Your task to perform on an android device: Open the phone app and click the voicemail tab. Image 0: 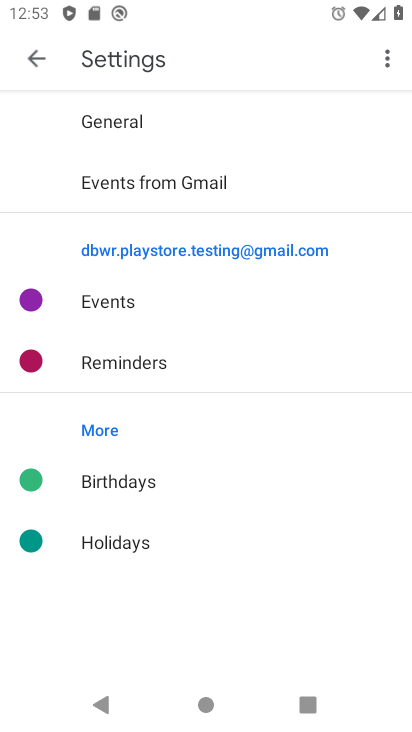
Step 0: press home button
Your task to perform on an android device: Open the phone app and click the voicemail tab. Image 1: 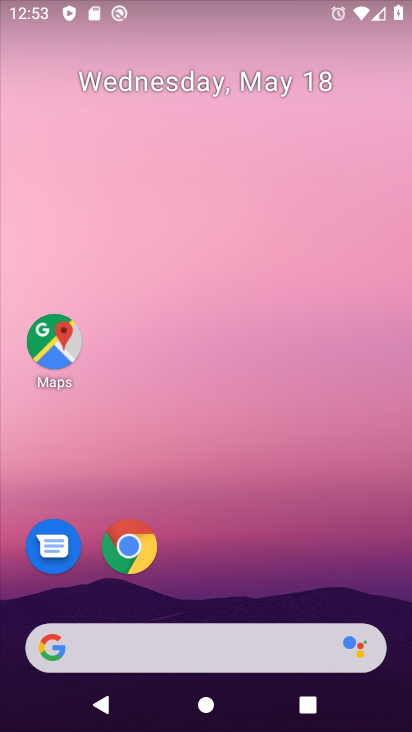
Step 1: drag from (131, 611) to (228, 10)
Your task to perform on an android device: Open the phone app and click the voicemail tab. Image 2: 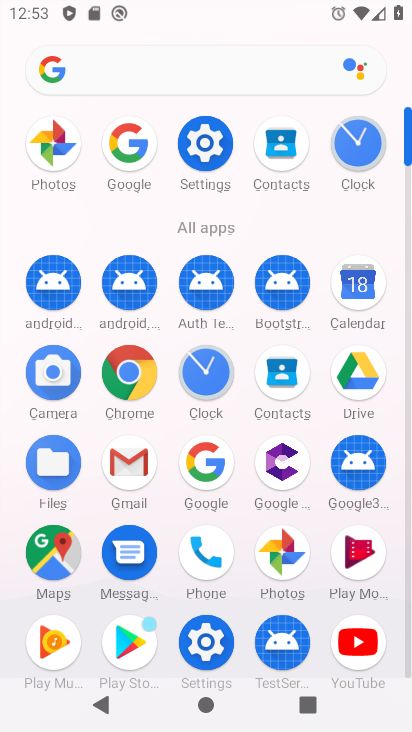
Step 2: click (202, 575)
Your task to perform on an android device: Open the phone app and click the voicemail tab. Image 3: 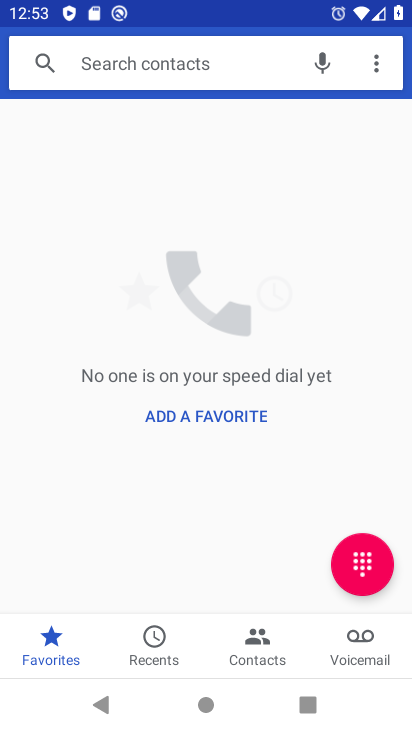
Step 3: click (354, 638)
Your task to perform on an android device: Open the phone app and click the voicemail tab. Image 4: 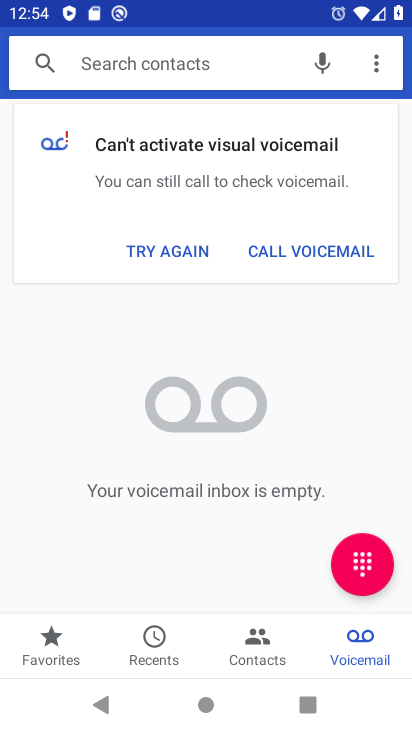
Step 4: task complete